Your task to perform on an android device: Open eBay Image 0: 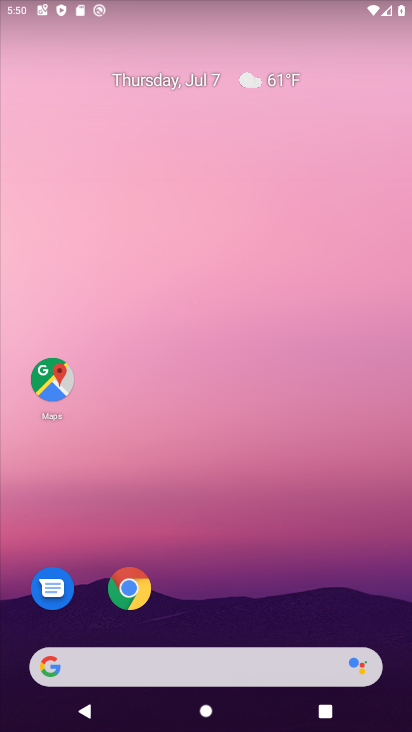
Step 0: click (118, 579)
Your task to perform on an android device: Open eBay Image 1: 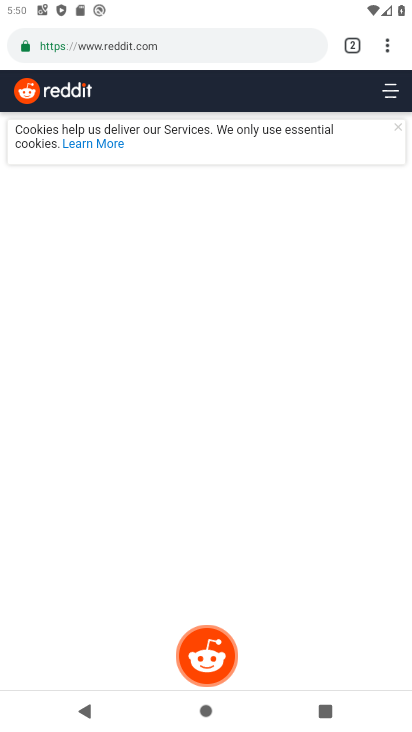
Step 1: click (353, 43)
Your task to perform on an android device: Open eBay Image 2: 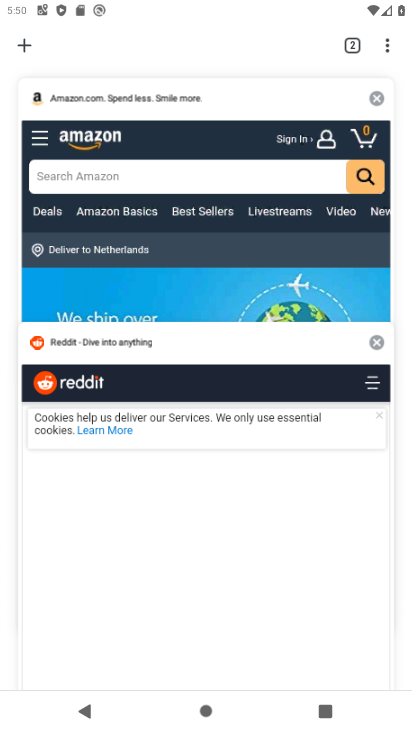
Step 2: click (26, 47)
Your task to perform on an android device: Open eBay Image 3: 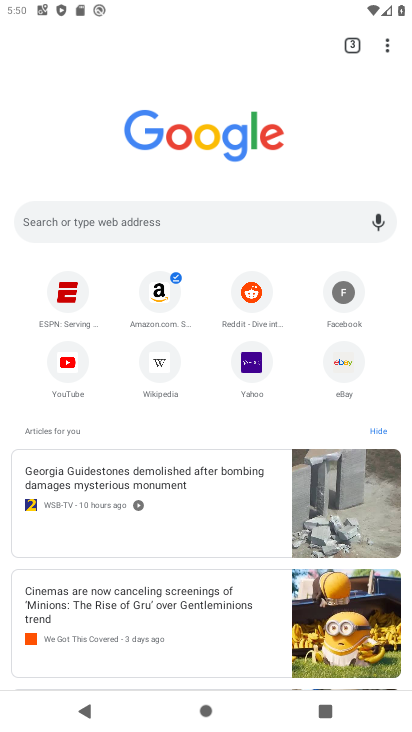
Step 3: click (355, 359)
Your task to perform on an android device: Open eBay Image 4: 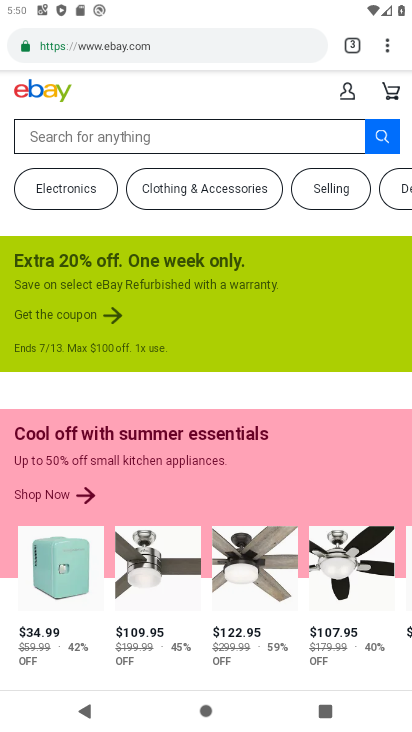
Step 4: task complete